Your task to perform on an android device: Turn off the flashlight Image 0: 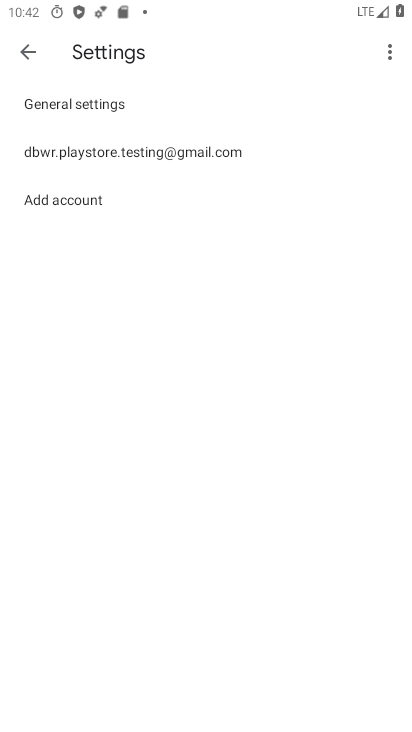
Step 0: press home button
Your task to perform on an android device: Turn off the flashlight Image 1: 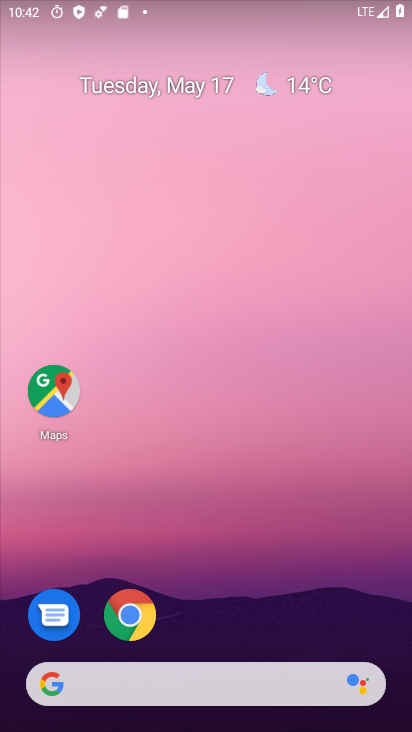
Step 1: task complete